Your task to perform on an android device: Empty the shopping cart on target. Add "duracell triple a" to the cart on target, then select checkout. Image 0: 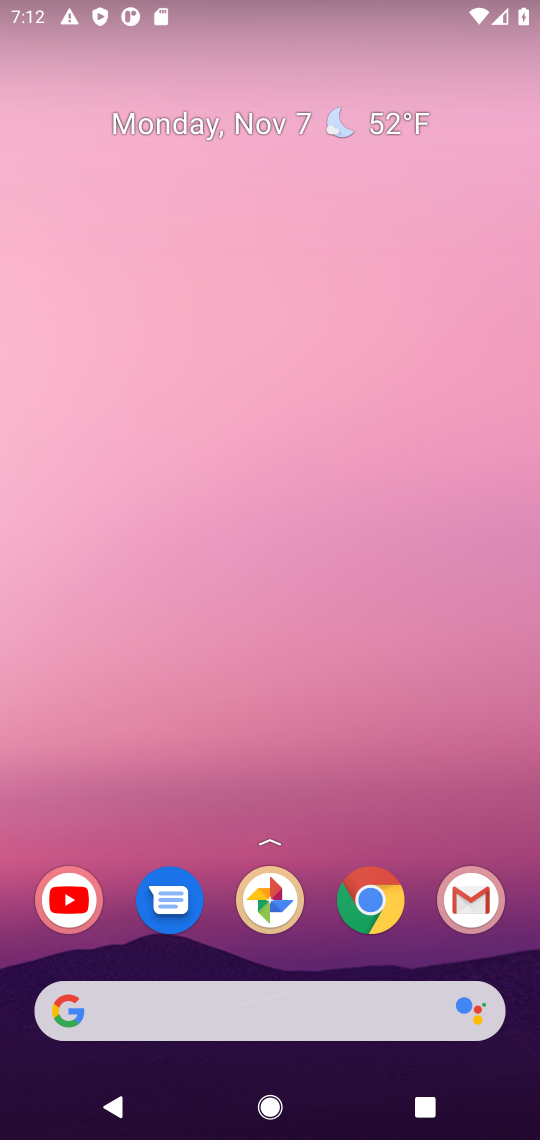
Step 0: drag from (307, 889) to (353, 210)
Your task to perform on an android device: Empty the shopping cart on target. Add "duracell triple a" to the cart on target, then select checkout. Image 1: 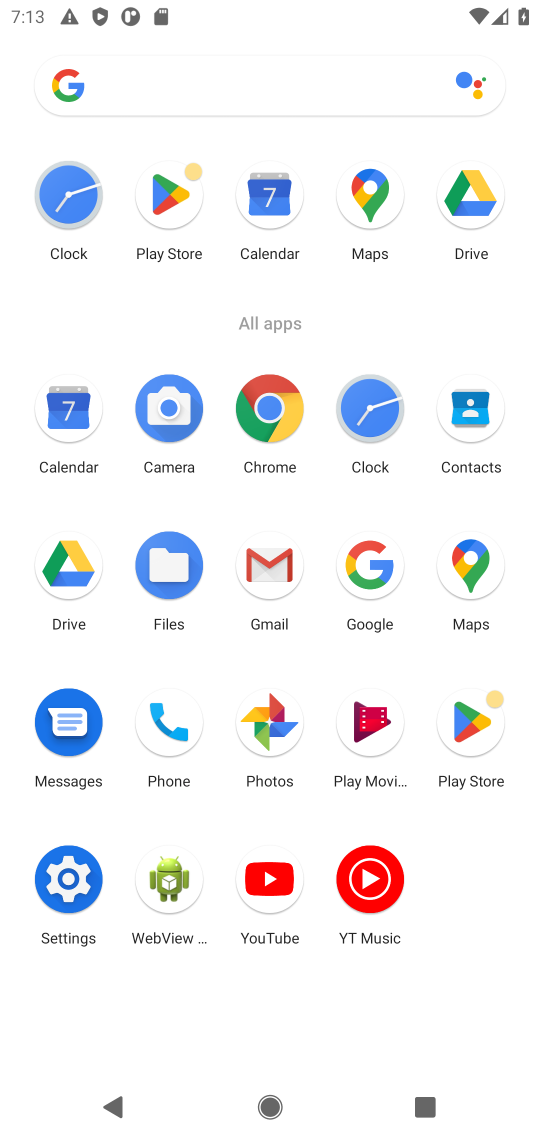
Step 1: click (268, 430)
Your task to perform on an android device: Empty the shopping cart on target. Add "duracell triple a" to the cart on target, then select checkout. Image 2: 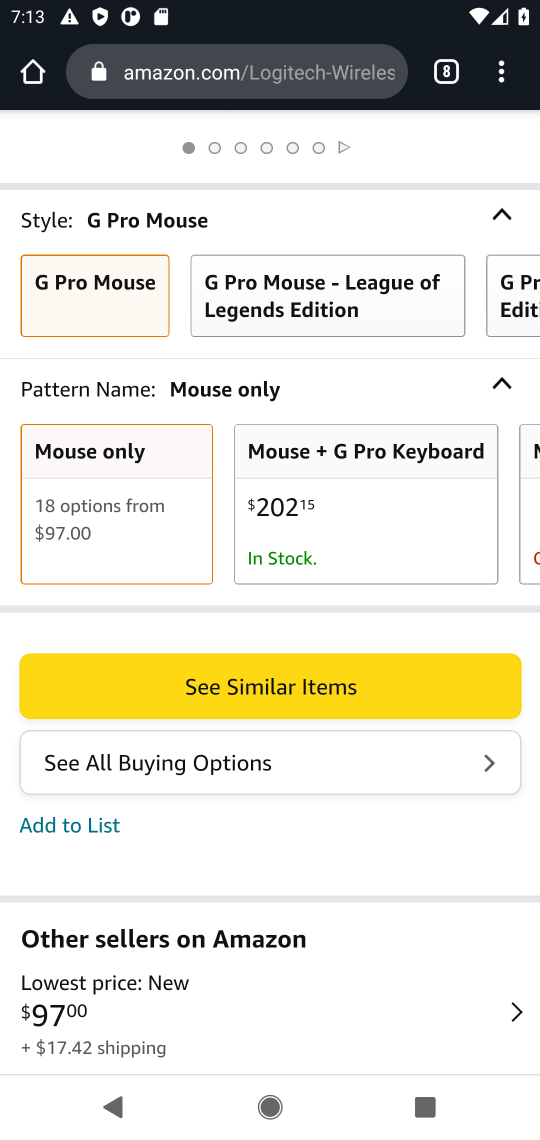
Step 2: drag from (325, 311) to (325, 987)
Your task to perform on an android device: Empty the shopping cart on target. Add "duracell triple a" to the cart on target, then select checkout. Image 3: 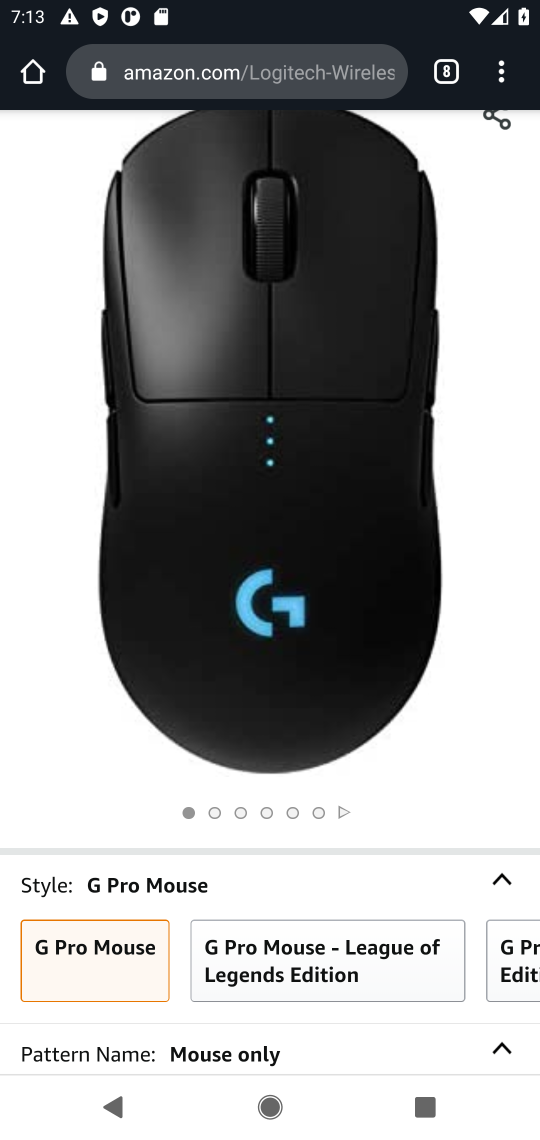
Step 3: drag from (405, 336) to (348, 1093)
Your task to perform on an android device: Empty the shopping cart on target. Add "duracell triple a" to the cart on target, then select checkout. Image 4: 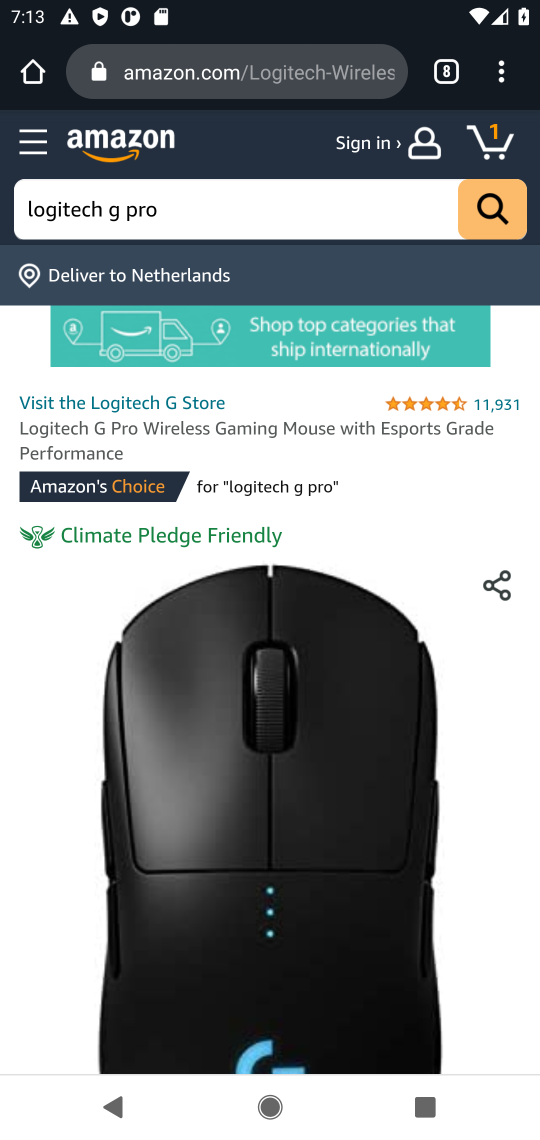
Step 4: click (462, 74)
Your task to perform on an android device: Empty the shopping cart on target. Add "duracell triple a" to the cart on target, then select checkout. Image 5: 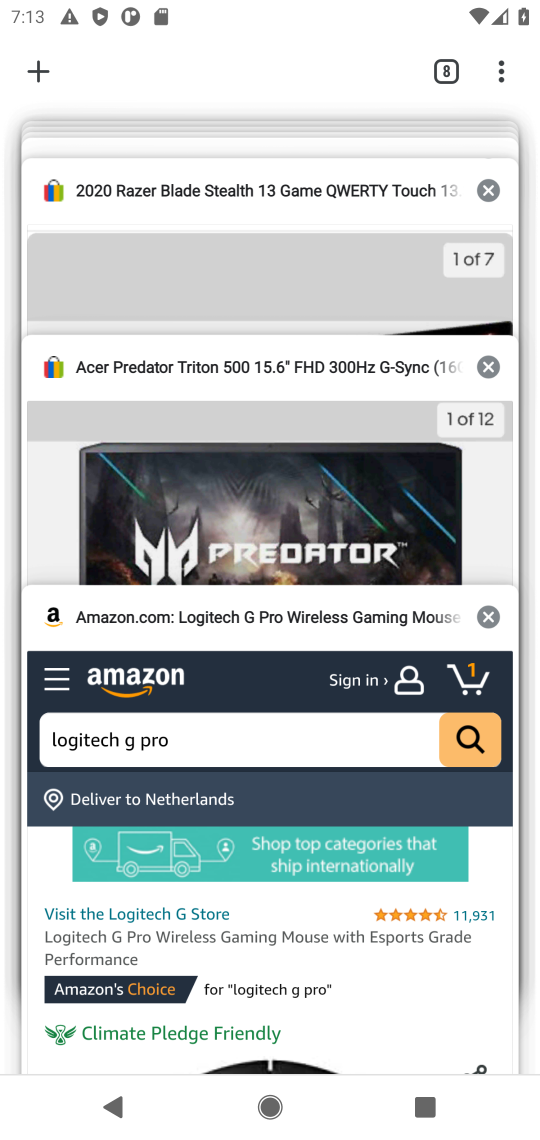
Step 5: click (493, 612)
Your task to perform on an android device: Empty the shopping cart on target. Add "duracell triple a" to the cart on target, then select checkout. Image 6: 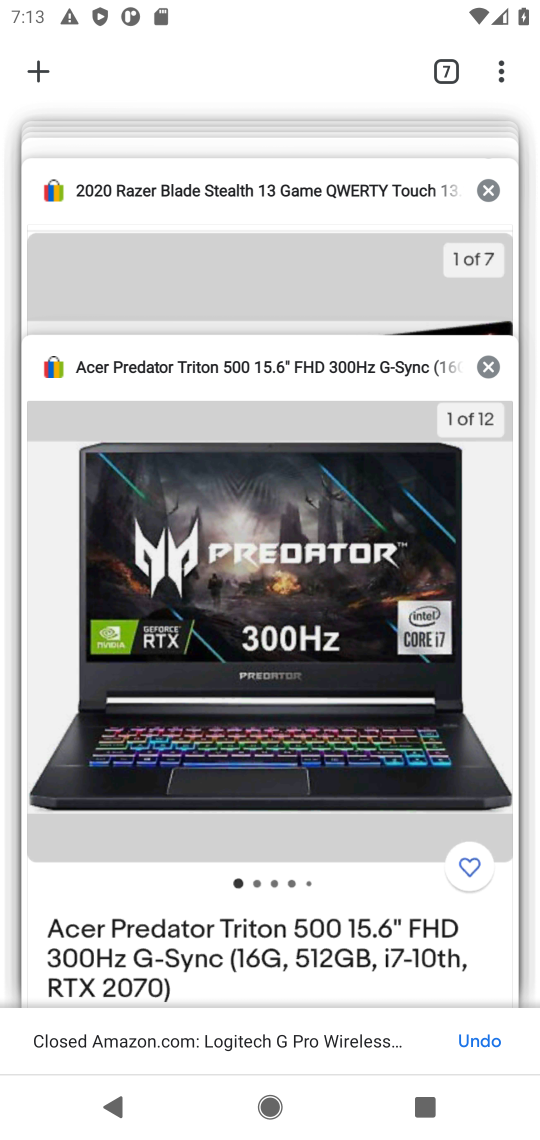
Step 6: click (479, 364)
Your task to perform on an android device: Empty the shopping cart on target. Add "duracell triple a" to the cart on target, then select checkout. Image 7: 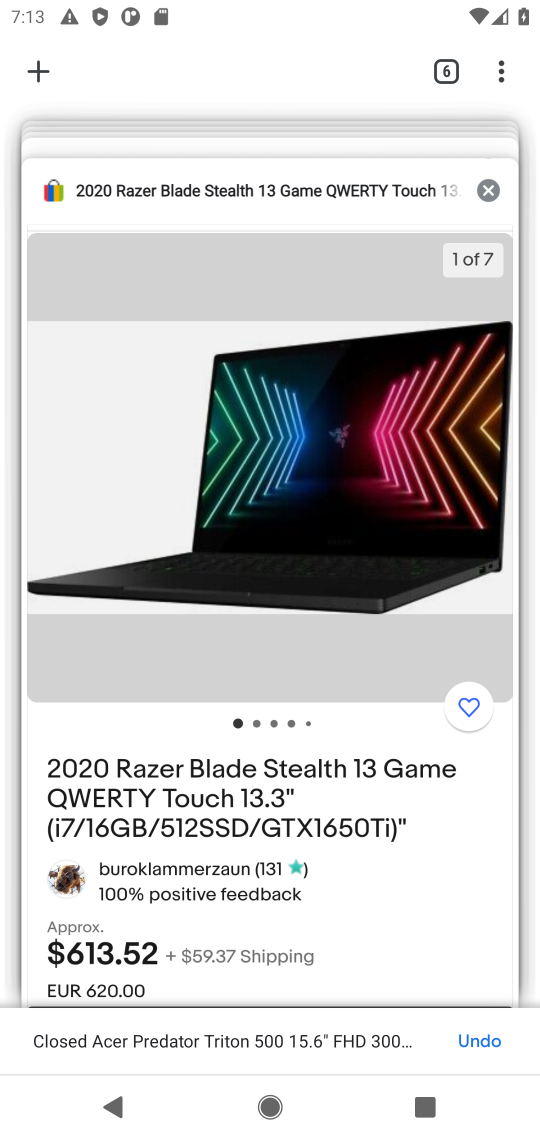
Step 7: click (500, 193)
Your task to perform on an android device: Empty the shopping cart on target. Add "duracell triple a" to the cart on target, then select checkout. Image 8: 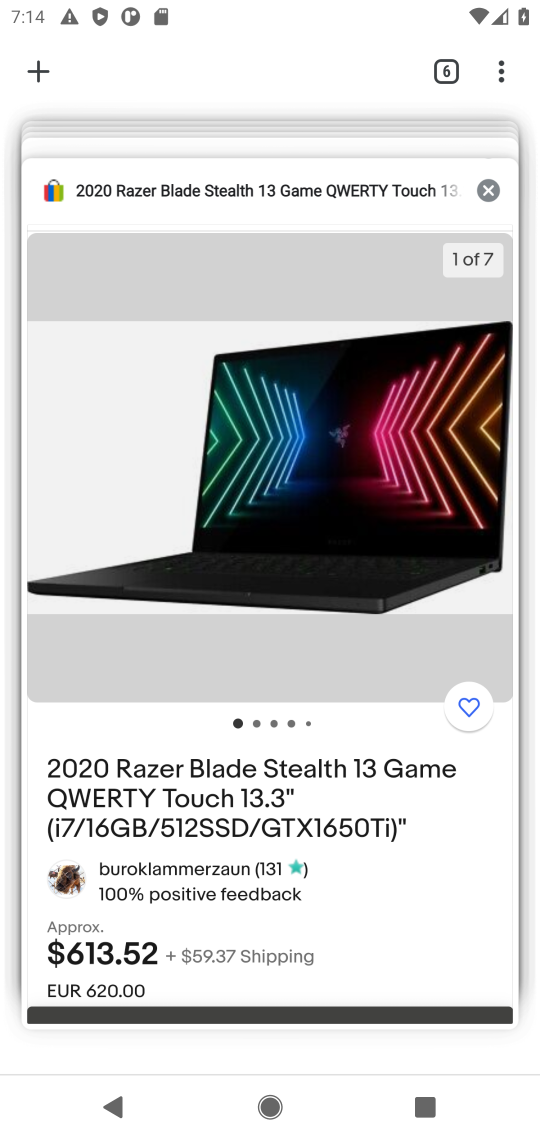
Step 8: click (489, 191)
Your task to perform on an android device: Empty the shopping cart on target. Add "duracell triple a" to the cart on target, then select checkout. Image 9: 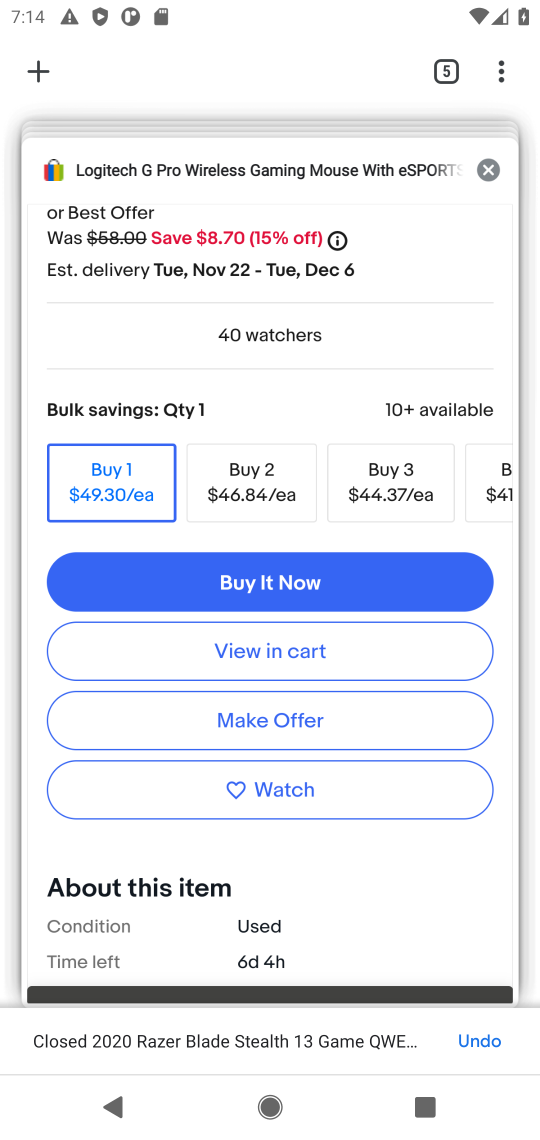
Step 9: click (494, 171)
Your task to perform on an android device: Empty the shopping cart on target. Add "duracell triple a" to the cart on target, then select checkout. Image 10: 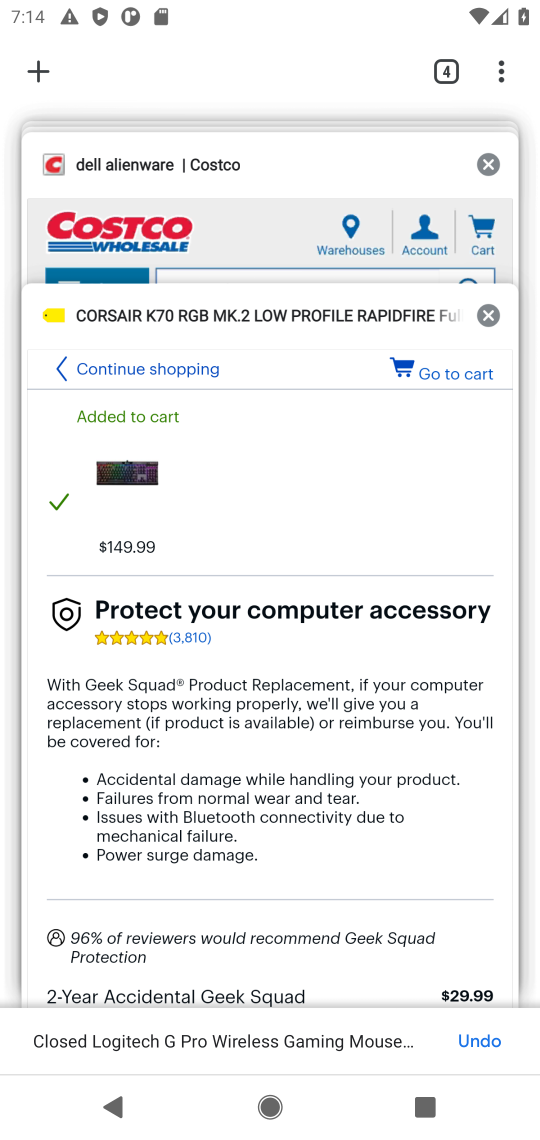
Step 10: click (490, 173)
Your task to perform on an android device: Empty the shopping cart on target. Add "duracell triple a" to the cart on target, then select checkout. Image 11: 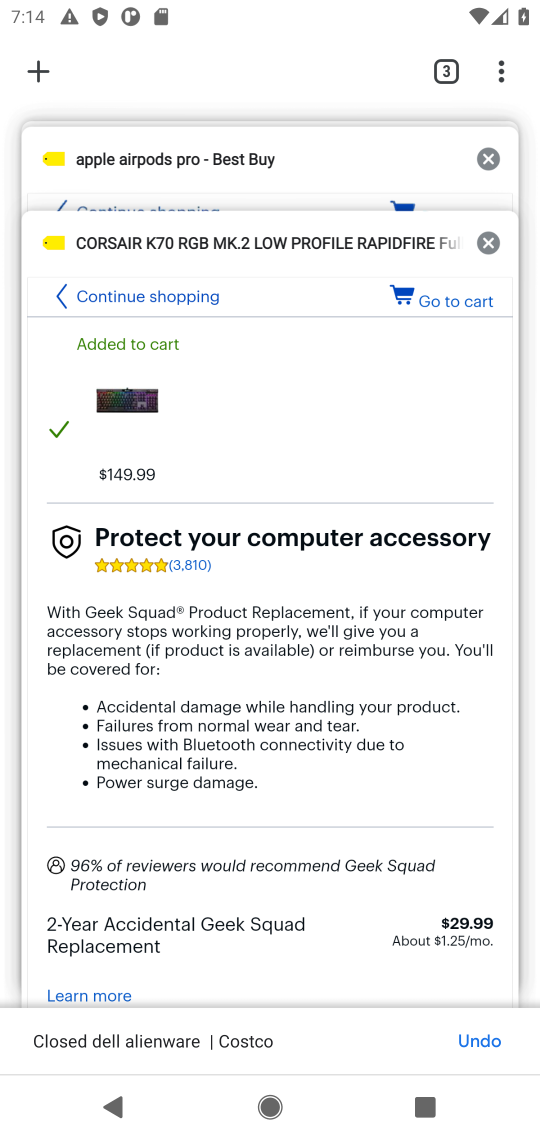
Step 11: click (490, 173)
Your task to perform on an android device: Empty the shopping cart on target. Add "duracell triple a" to the cart on target, then select checkout. Image 12: 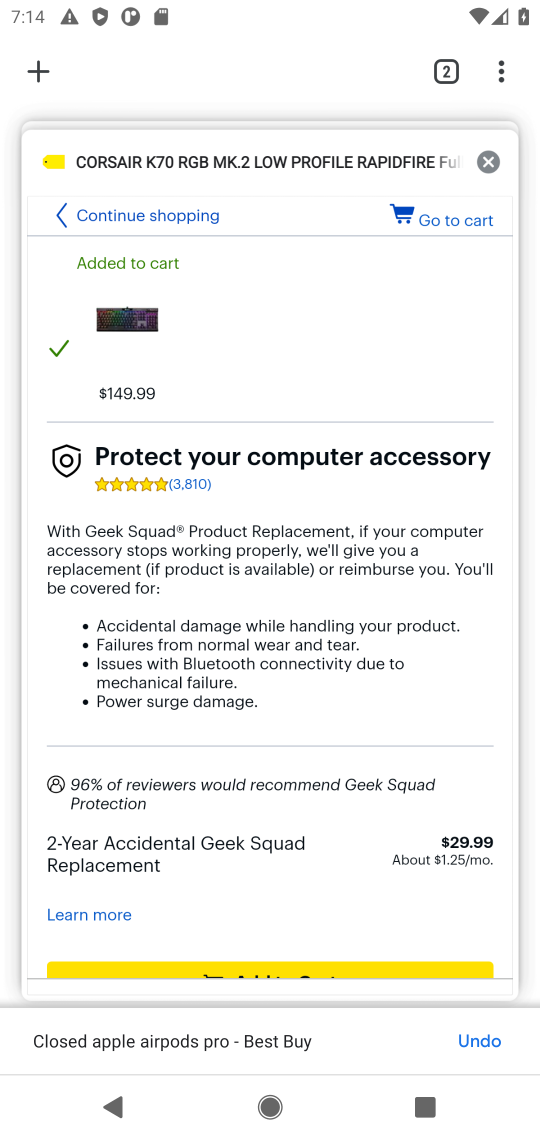
Step 12: click (490, 149)
Your task to perform on an android device: Empty the shopping cart on target. Add "duracell triple a" to the cart on target, then select checkout. Image 13: 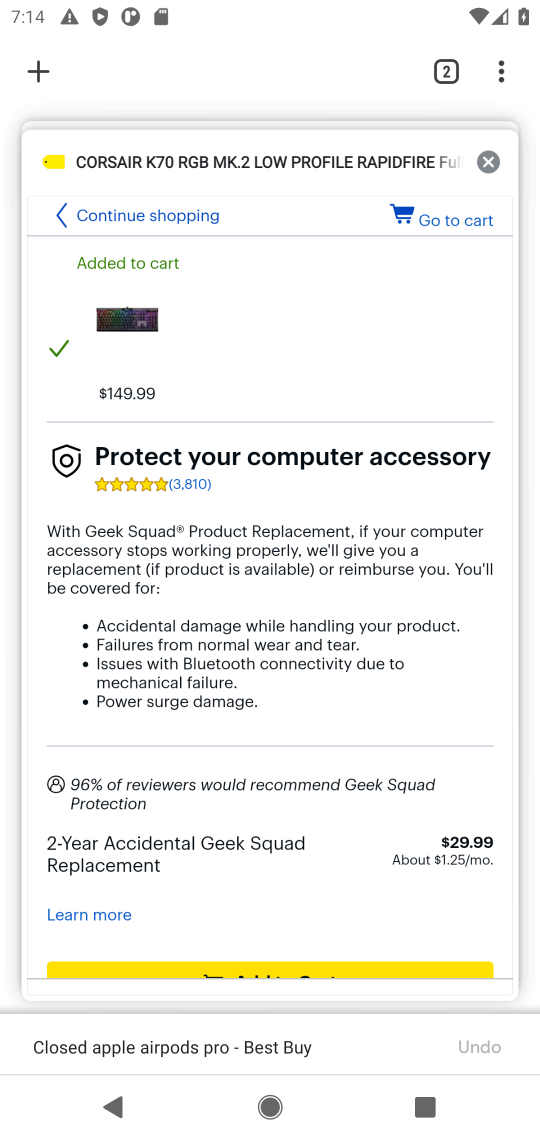
Step 13: click (488, 168)
Your task to perform on an android device: Empty the shopping cart on target. Add "duracell triple a" to the cart on target, then select checkout. Image 14: 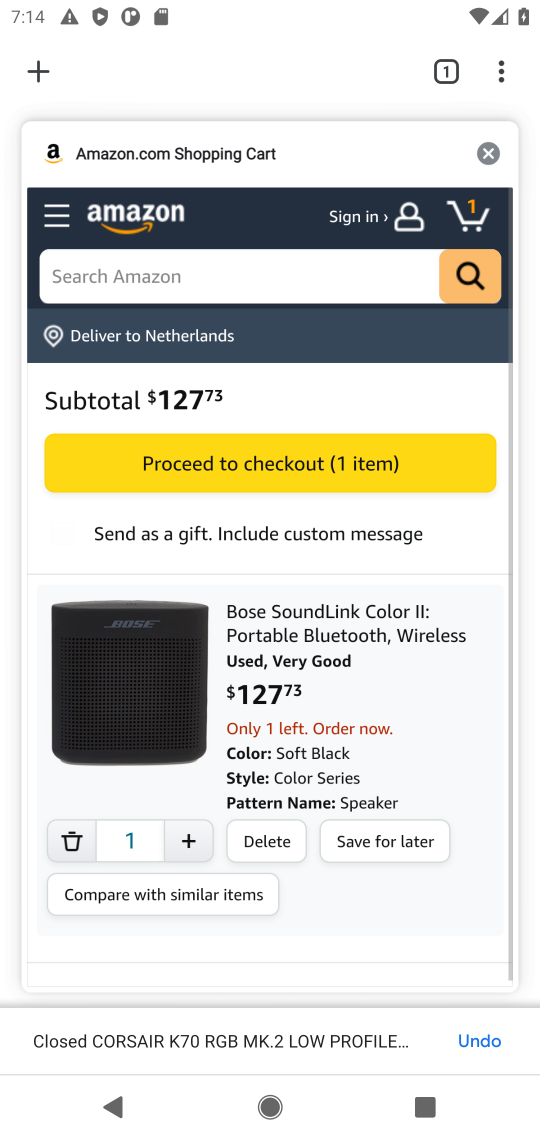
Step 14: click (496, 155)
Your task to perform on an android device: Empty the shopping cart on target. Add "duracell triple a" to the cart on target, then select checkout. Image 15: 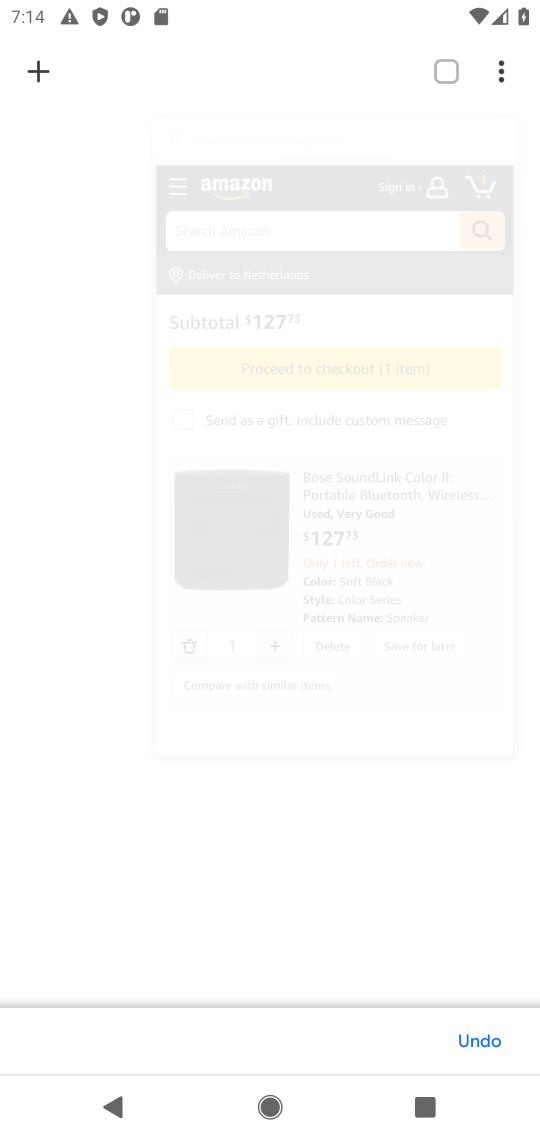
Step 15: click (31, 74)
Your task to perform on an android device: Empty the shopping cart on target. Add "duracell triple a" to the cart on target, then select checkout. Image 16: 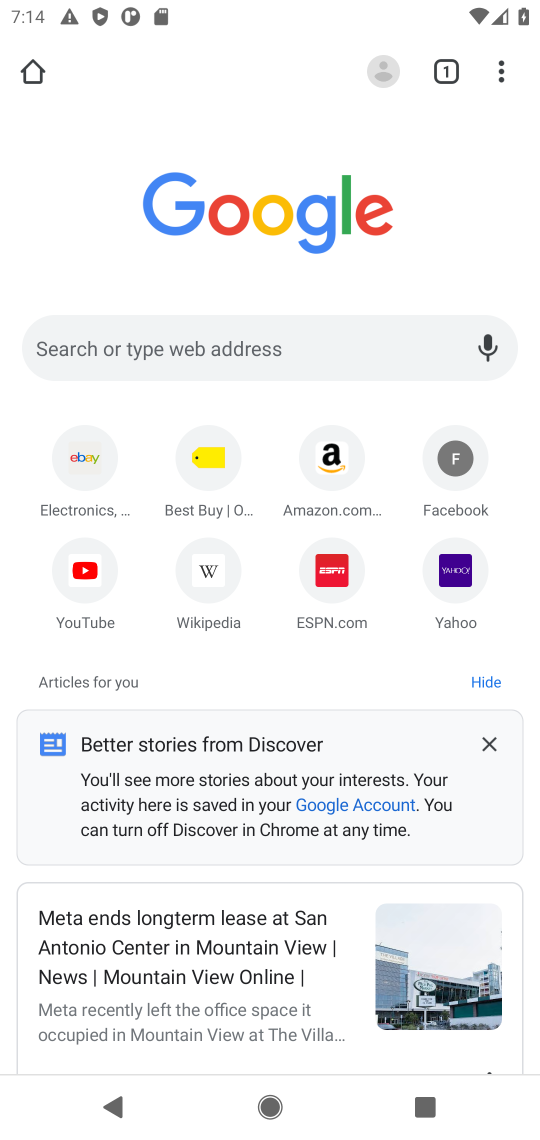
Step 16: click (197, 342)
Your task to perform on an android device: Empty the shopping cart on target. Add "duracell triple a" to the cart on target, then select checkout. Image 17: 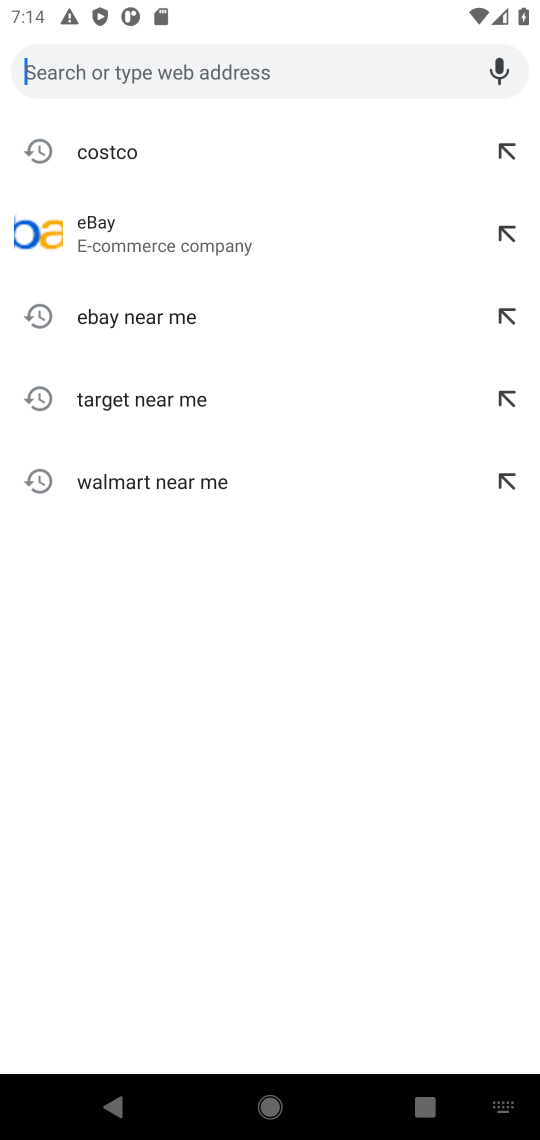
Step 17: click (53, 86)
Your task to perform on an android device: Empty the shopping cart on target. Add "duracell triple a" to the cart on target, then select checkout. Image 18: 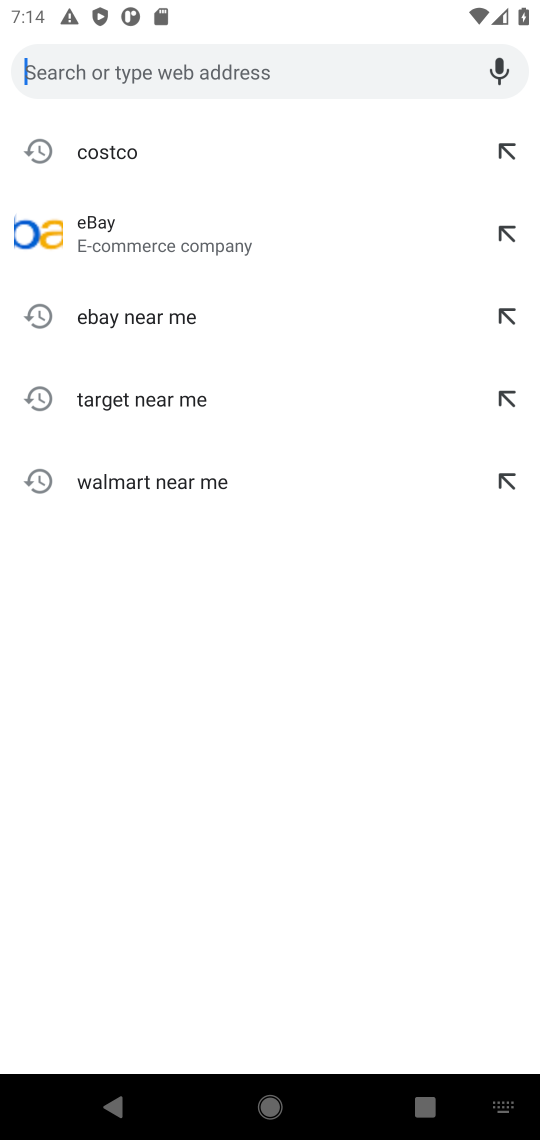
Step 18: type "target."
Your task to perform on an android device: Empty the shopping cart on target. Add "duracell triple a" to the cart on target, then select checkout. Image 19: 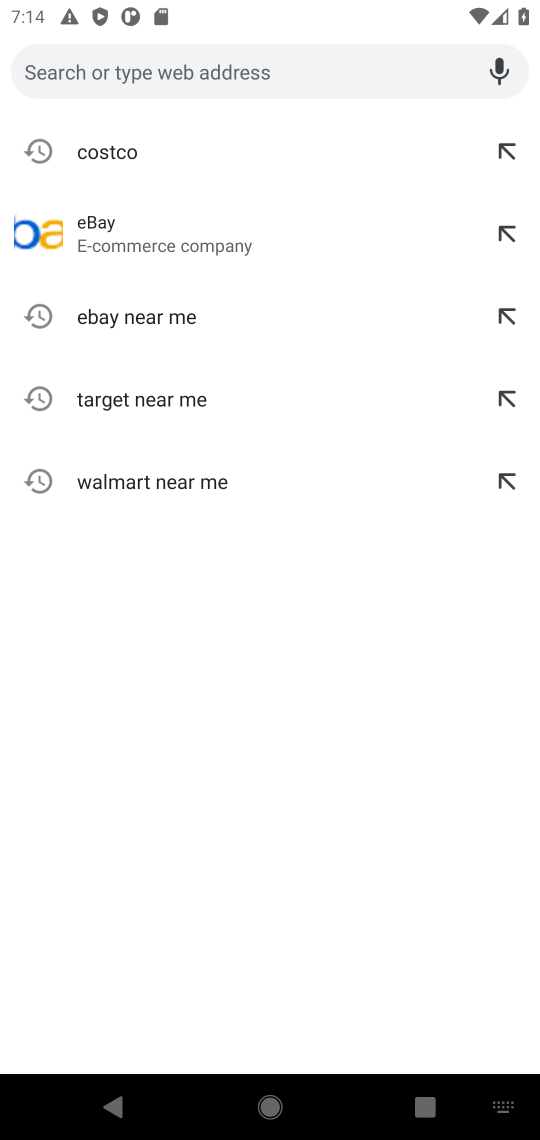
Step 19: click (274, 686)
Your task to perform on an android device: Empty the shopping cart on target. Add "duracell triple a" to the cart on target, then select checkout. Image 20: 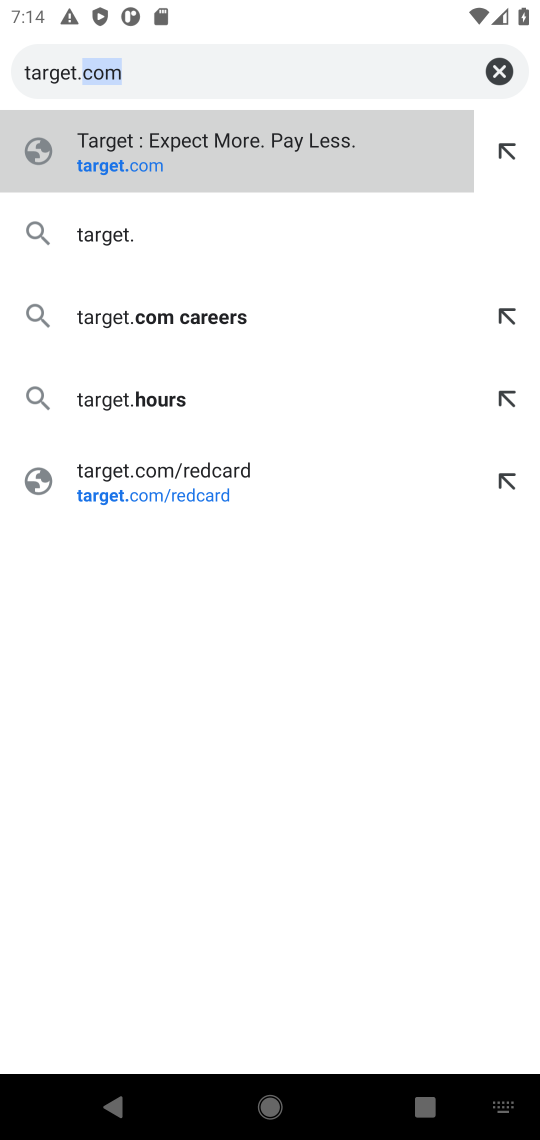
Step 20: click (272, 180)
Your task to perform on an android device: Empty the shopping cart on target. Add "duracell triple a" to the cart on target, then select checkout. Image 21: 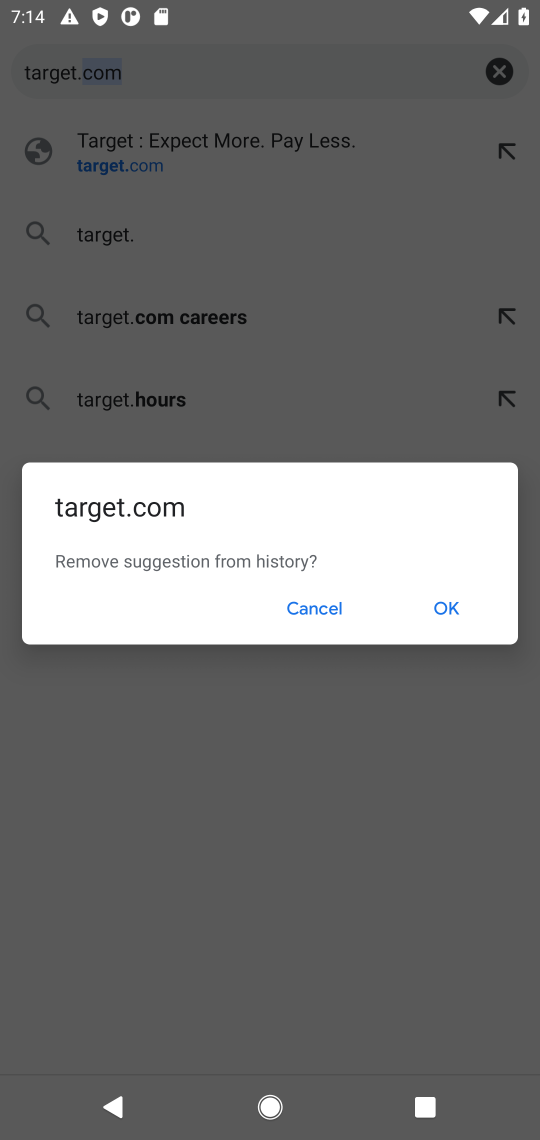
Step 21: click (318, 620)
Your task to perform on an android device: Empty the shopping cart on target. Add "duracell triple a" to the cart on target, then select checkout. Image 22: 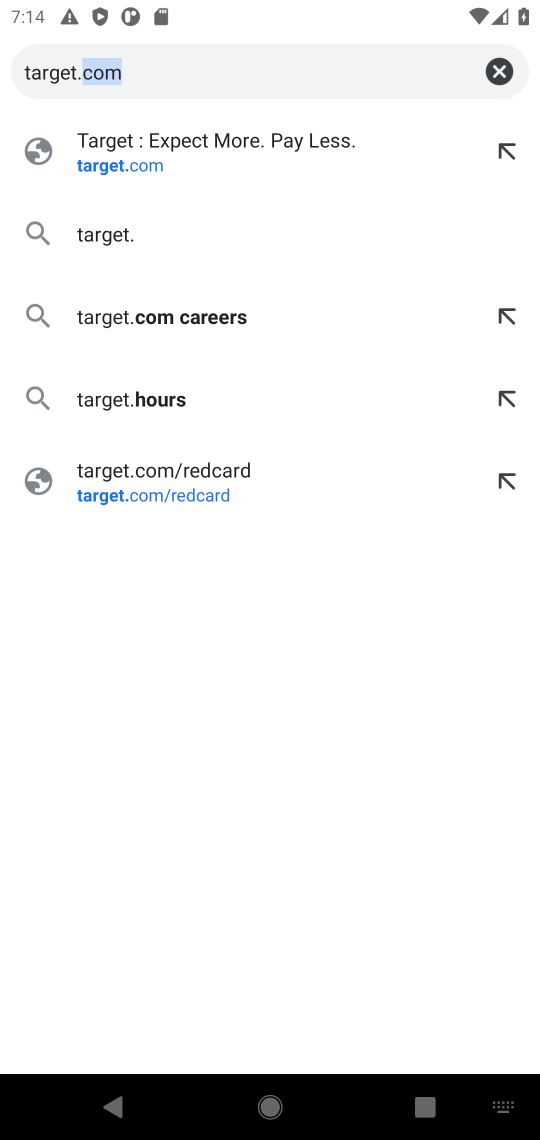
Step 22: click (252, 148)
Your task to perform on an android device: Empty the shopping cart on target. Add "duracell triple a" to the cart on target, then select checkout. Image 23: 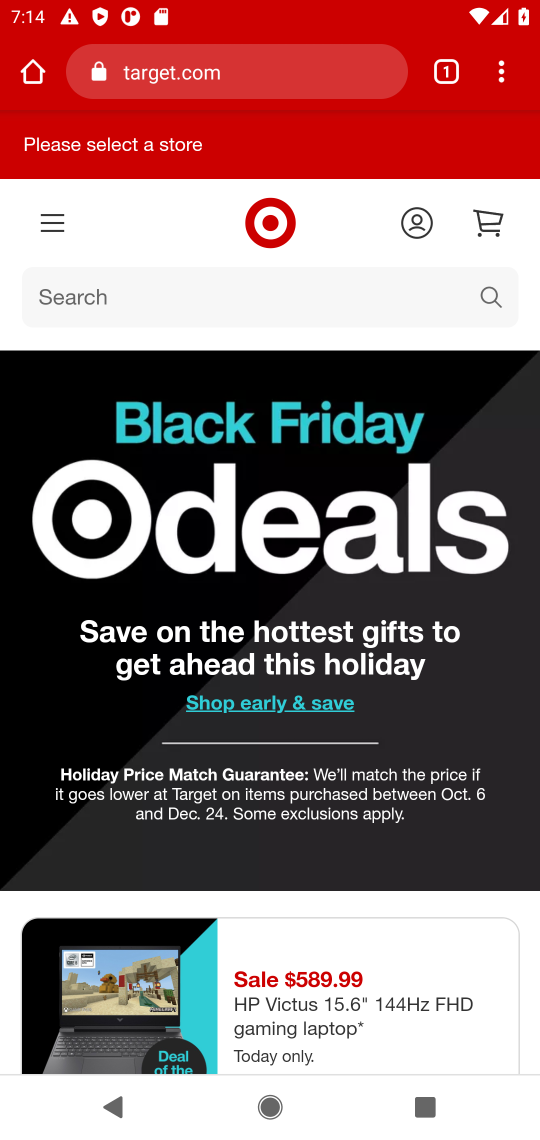
Step 23: click (159, 289)
Your task to perform on an android device: Empty the shopping cart on target. Add "duracell triple a" to the cart on target, then select checkout. Image 24: 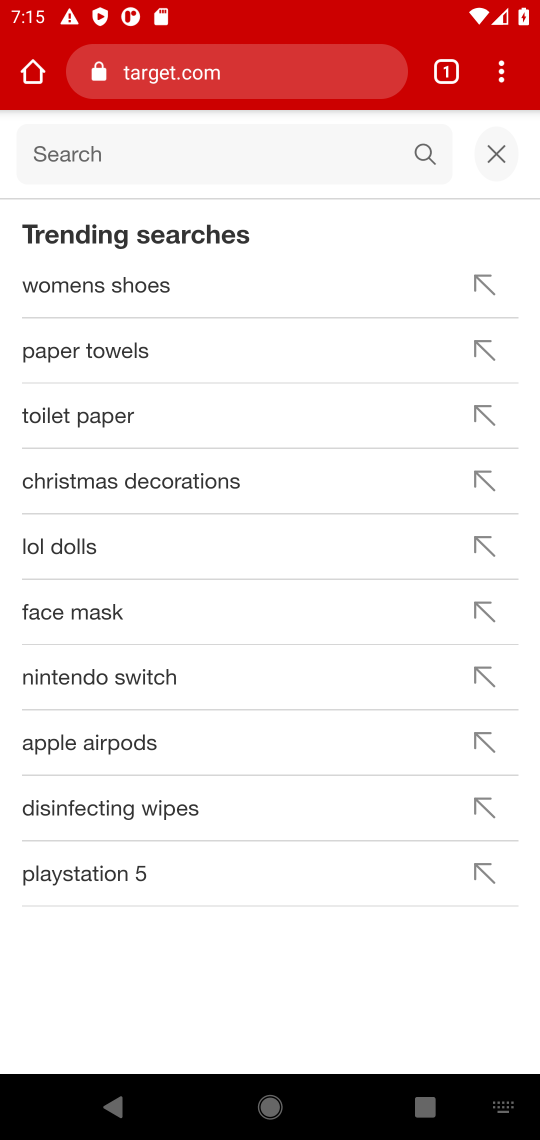
Step 24: click (110, 150)
Your task to perform on an android device: Empty the shopping cart on target. Add "duracell triple a" to the cart on target, then select checkout. Image 25: 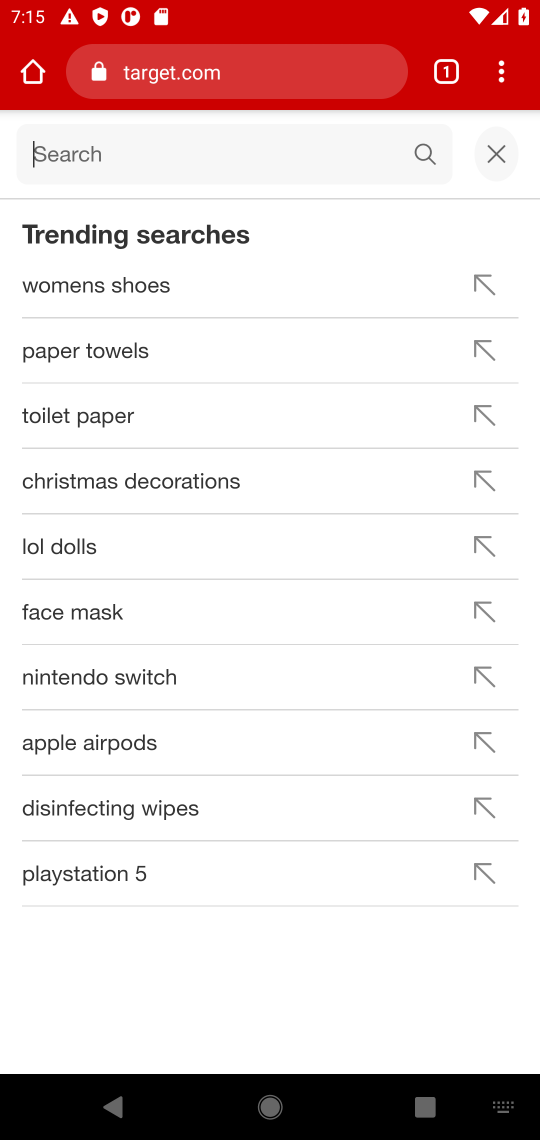
Step 25: click (144, 139)
Your task to perform on an android device: Empty the shopping cart on target. Add "duracell triple a" to the cart on target, then select checkout. Image 26: 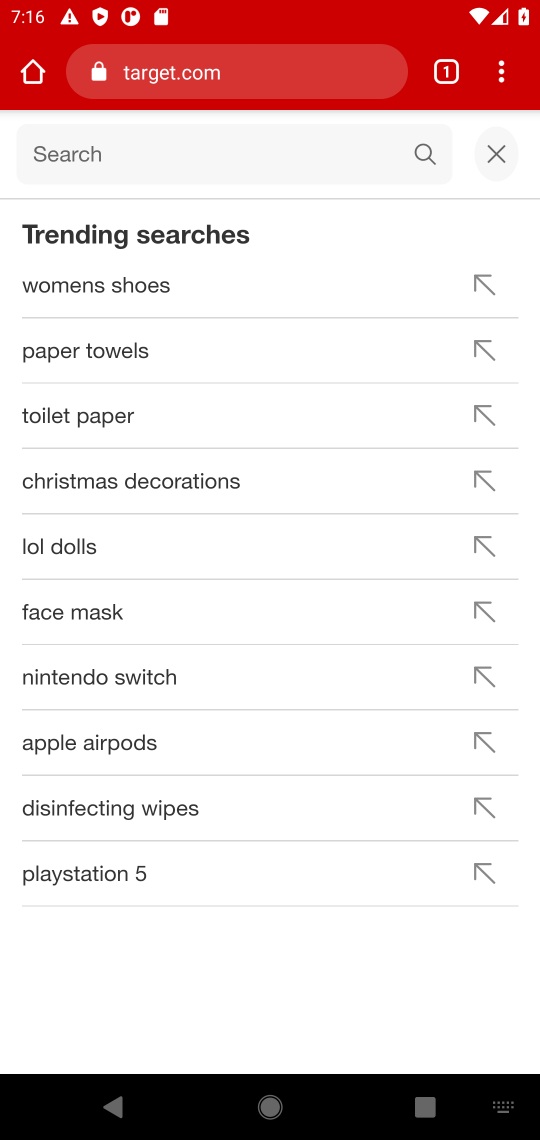
Step 26: click (102, 150)
Your task to perform on an android device: Empty the shopping cart on target. Add "duracell triple a" to the cart on target, then select checkout. Image 27: 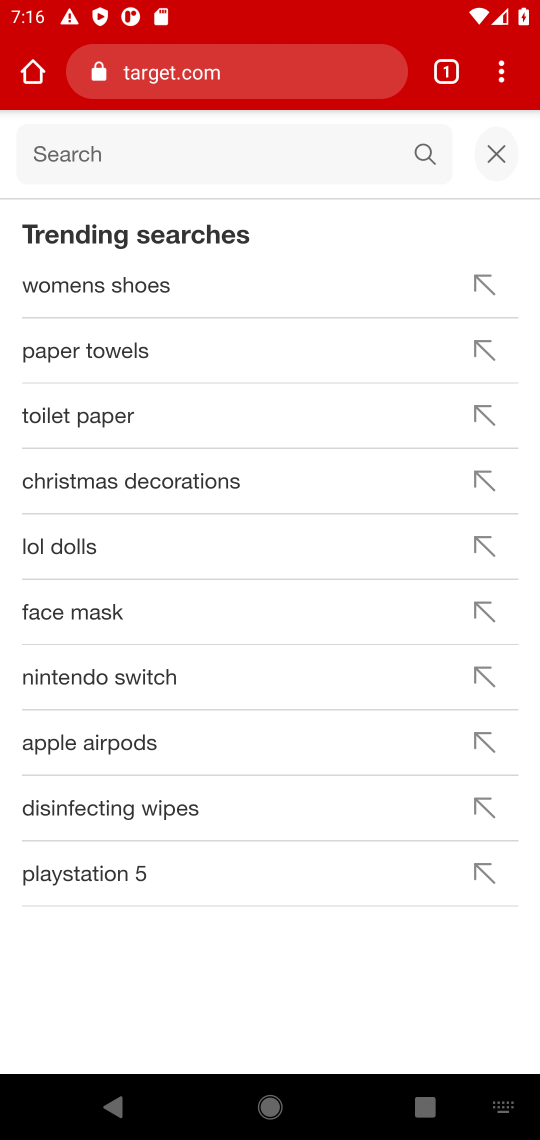
Step 27: type "duracell triple a"
Your task to perform on an android device: Empty the shopping cart on target. Add "duracell triple a" to the cart on target, then select checkout. Image 28: 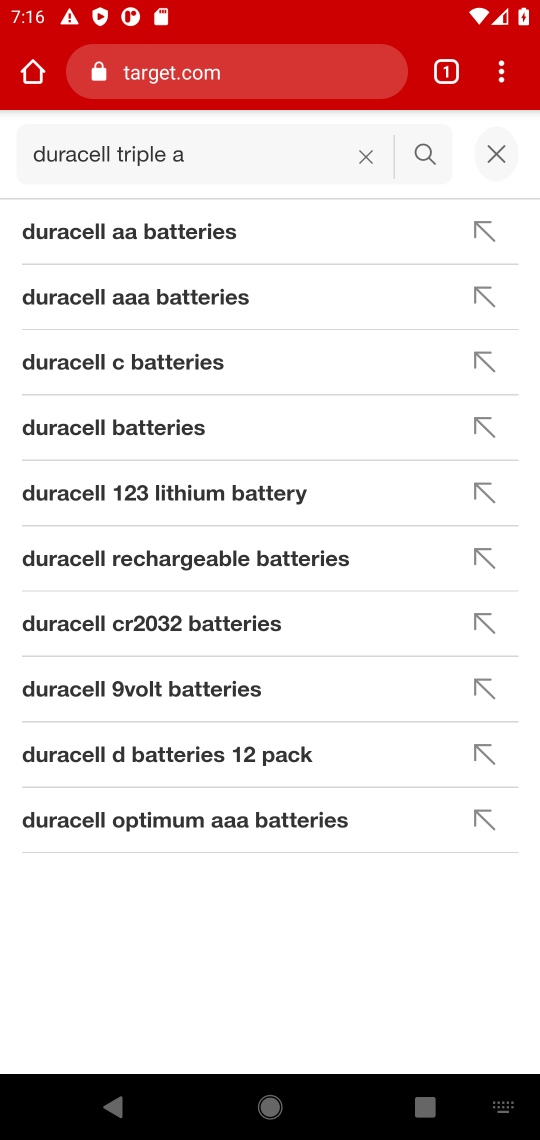
Step 28: click (162, 226)
Your task to perform on an android device: Empty the shopping cart on target. Add "duracell triple a" to the cart on target, then select checkout. Image 29: 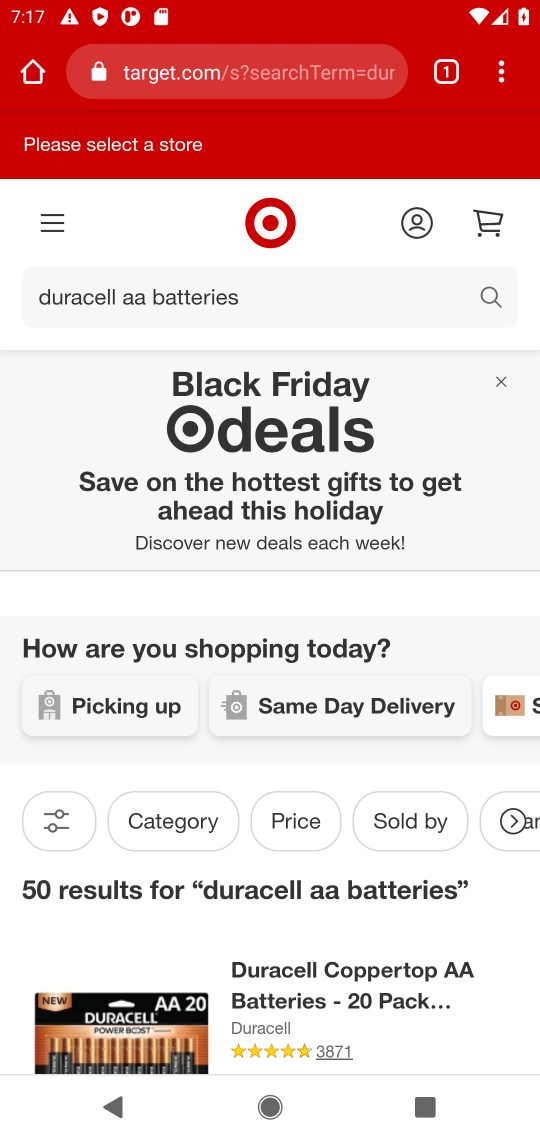
Step 29: drag from (247, 938) to (305, 513)
Your task to perform on an android device: Empty the shopping cart on target. Add "duracell triple a" to the cart on target, then select checkout. Image 30: 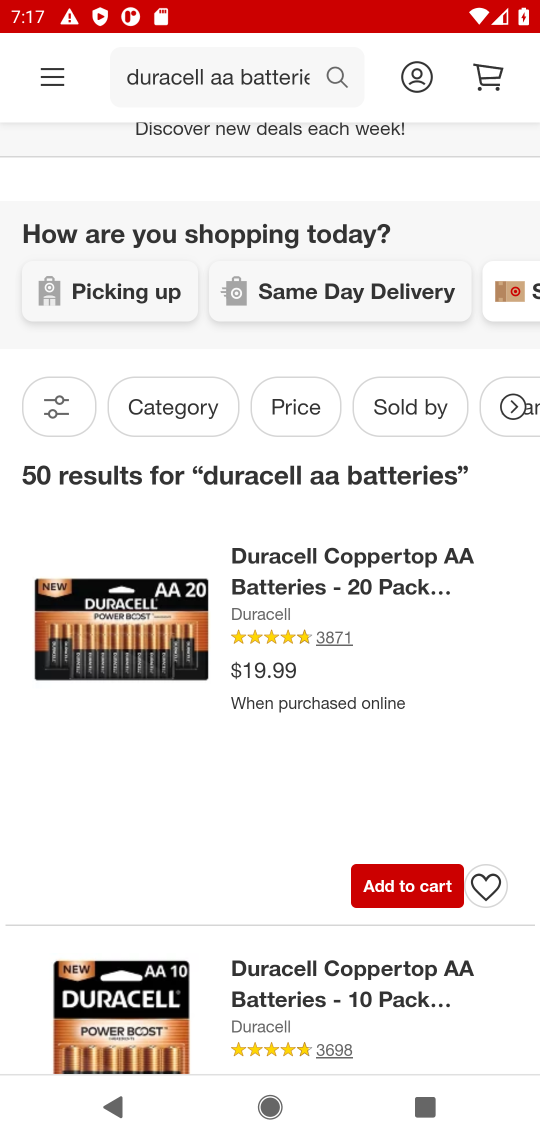
Step 30: click (108, 593)
Your task to perform on an android device: Empty the shopping cart on target. Add "duracell triple a" to the cart on target, then select checkout. Image 31: 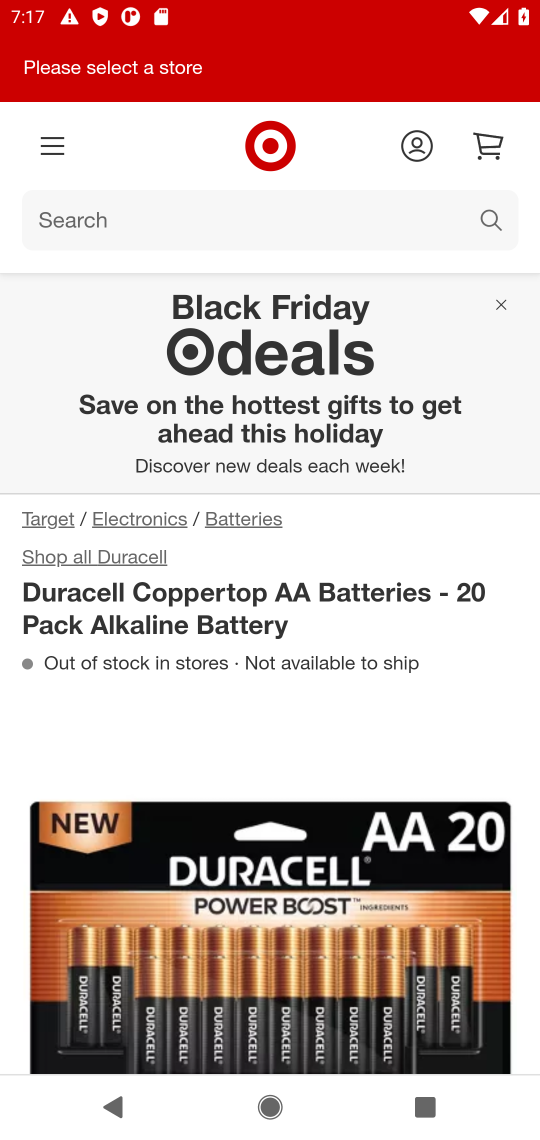
Step 31: drag from (319, 884) to (373, 530)
Your task to perform on an android device: Empty the shopping cart on target. Add "duracell triple a" to the cart on target, then select checkout. Image 32: 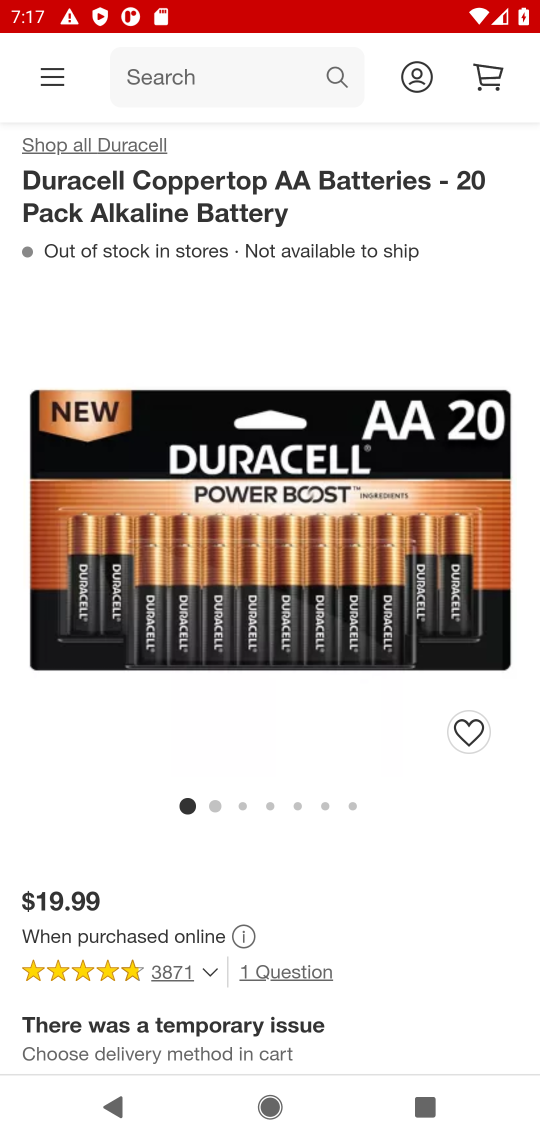
Step 32: drag from (304, 941) to (295, 280)
Your task to perform on an android device: Empty the shopping cart on target. Add "duracell triple a" to the cart on target, then select checkout. Image 33: 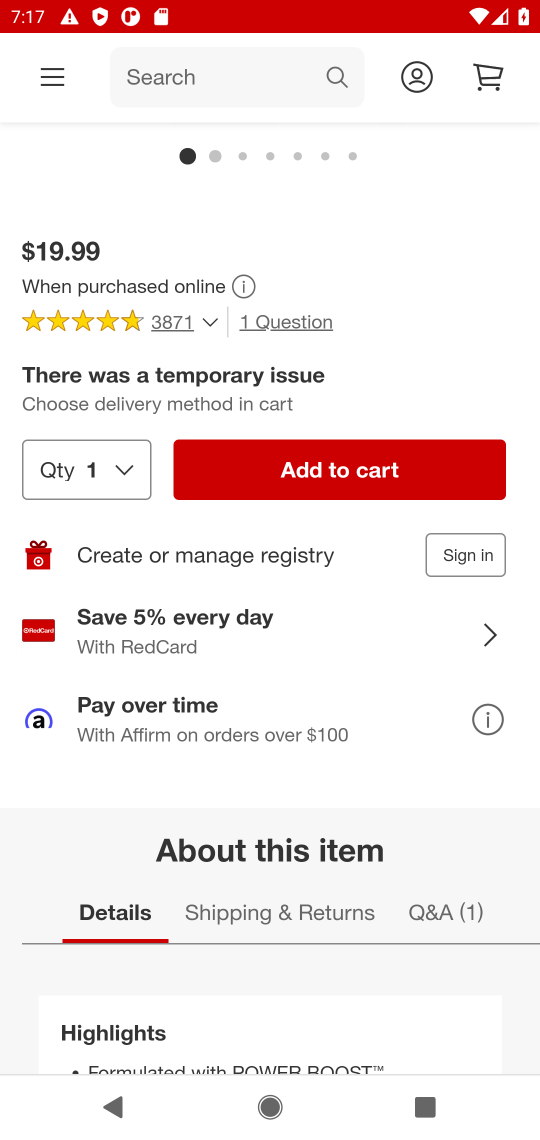
Step 33: click (344, 466)
Your task to perform on an android device: Empty the shopping cart on target. Add "duracell triple a" to the cart on target, then select checkout. Image 34: 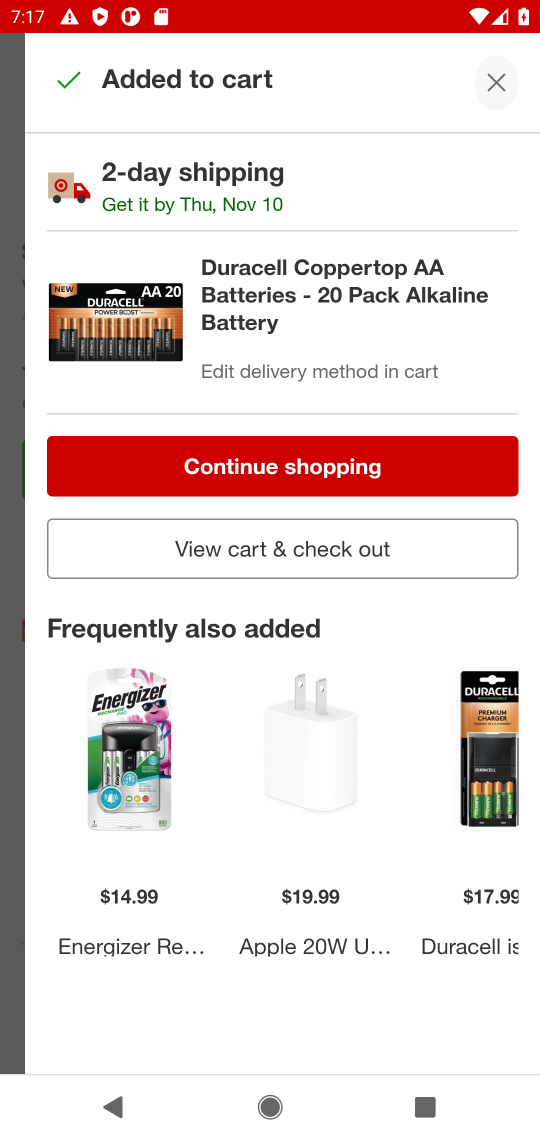
Step 34: click (296, 558)
Your task to perform on an android device: Empty the shopping cart on target. Add "duracell triple a" to the cart on target, then select checkout. Image 35: 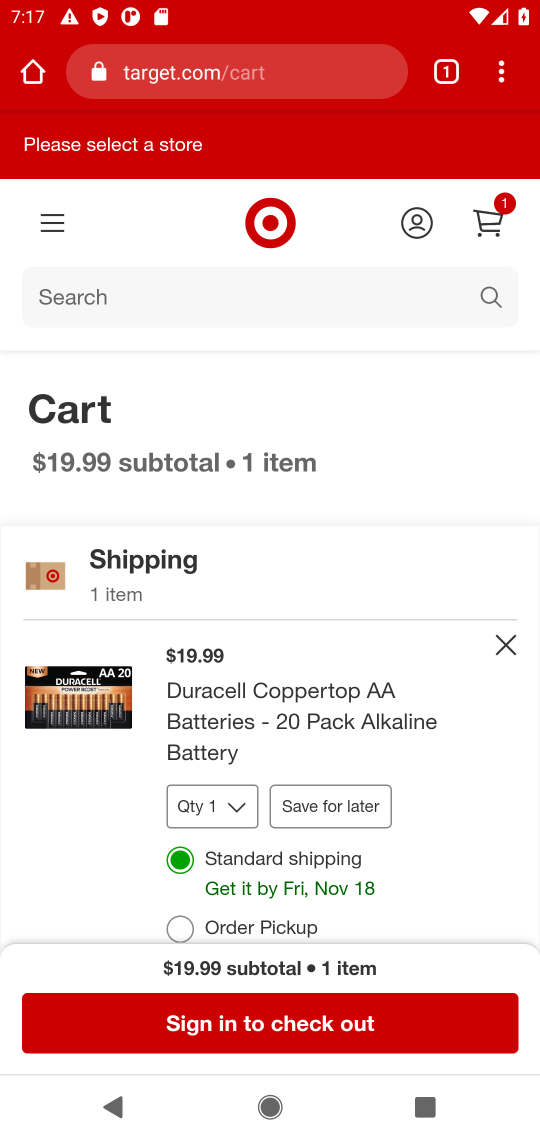
Step 35: task complete